Your task to perform on an android device: What is the news today? Image 0: 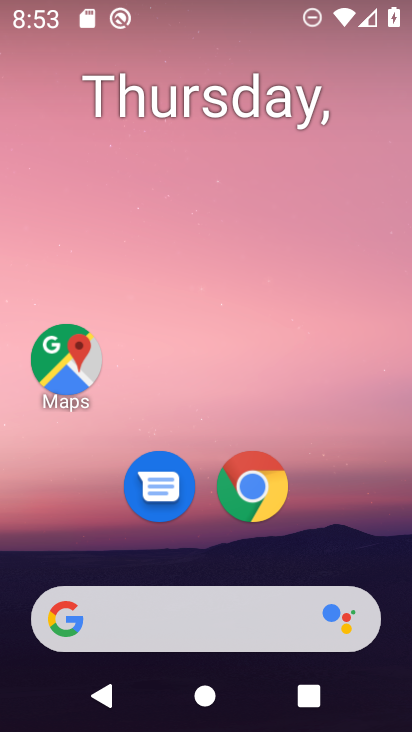
Step 0: click (153, 609)
Your task to perform on an android device: What is the news today? Image 1: 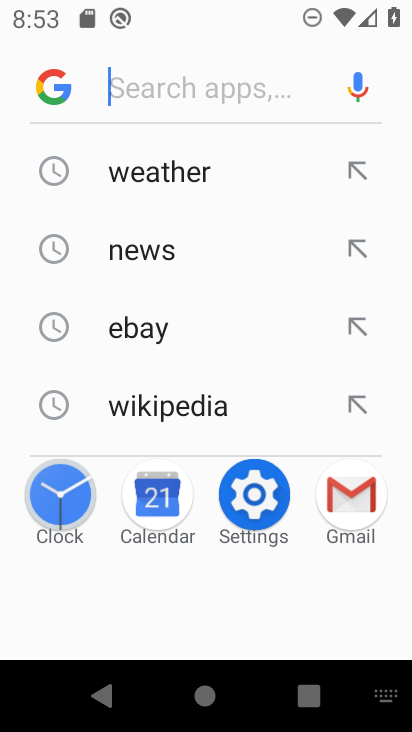
Step 1: click (145, 257)
Your task to perform on an android device: What is the news today? Image 2: 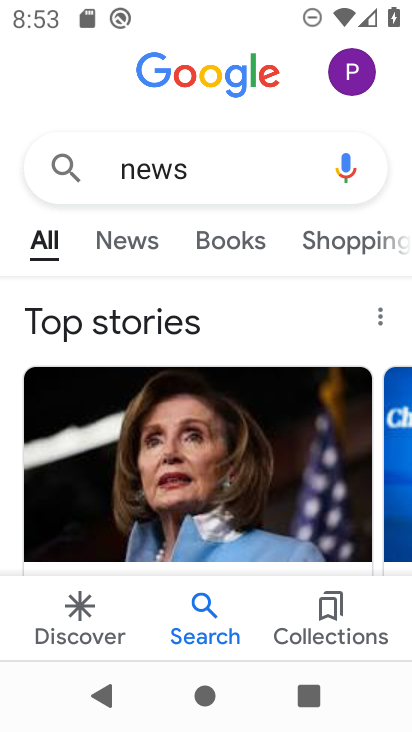
Step 2: task complete